Your task to perform on an android device: Go to notification settings Image 0: 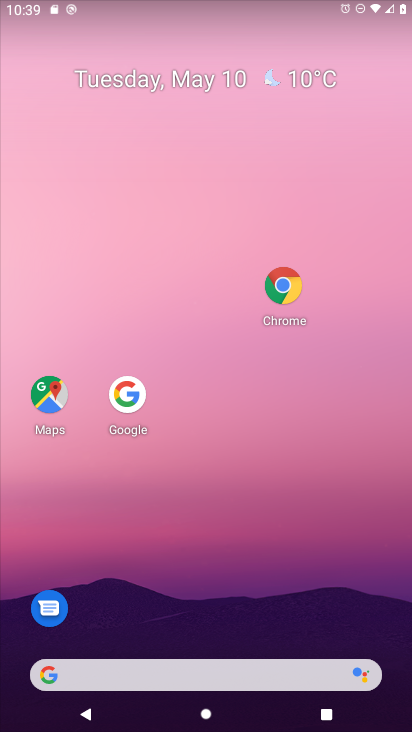
Step 0: drag from (144, 671) to (235, 278)
Your task to perform on an android device: Go to notification settings Image 1: 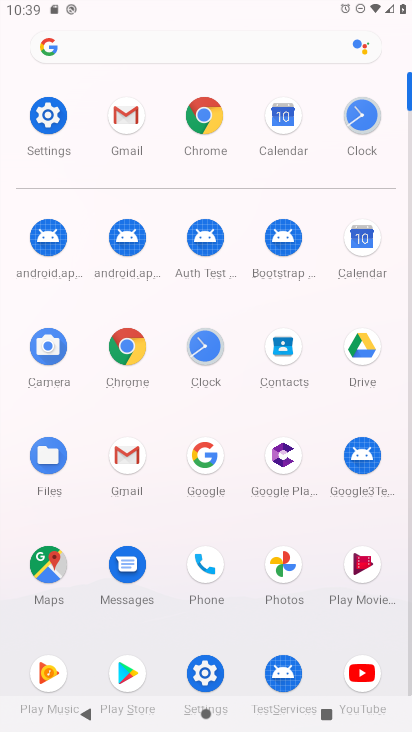
Step 1: click (44, 119)
Your task to perform on an android device: Go to notification settings Image 2: 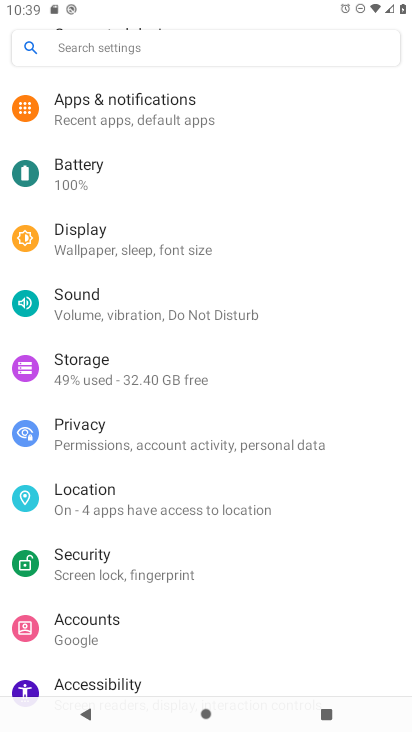
Step 2: click (157, 110)
Your task to perform on an android device: Go to notification settings Image 3: 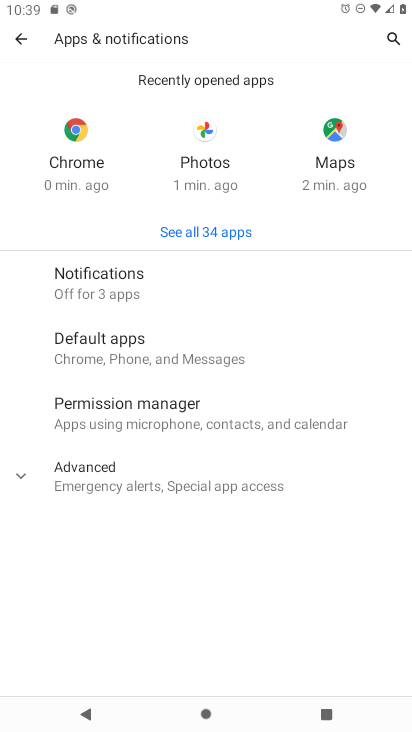
Step 3: click (123, 290)
Your task to perform on an android device: Go to notification settings Image 4: 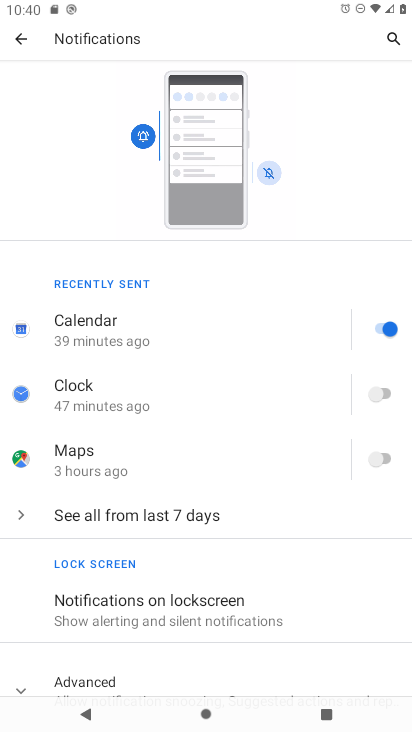
Step 4: task complete